Your task to perform on an android device: Open calendar and show me the second week of next month Image 0: 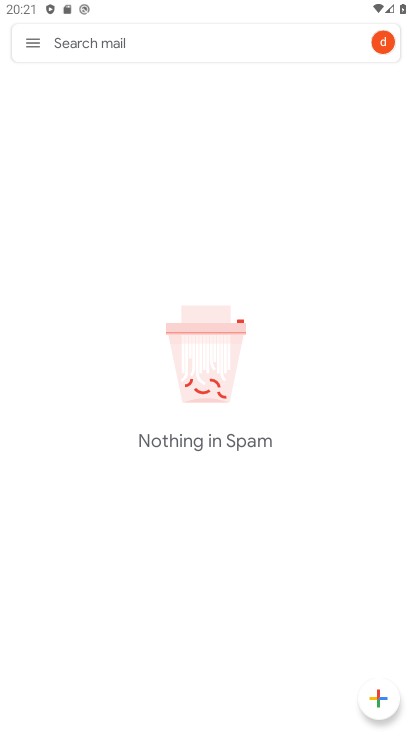
Step 0: press home button
Your task to perform on an android device: Open calendar and show me the second week of next month Image 1: 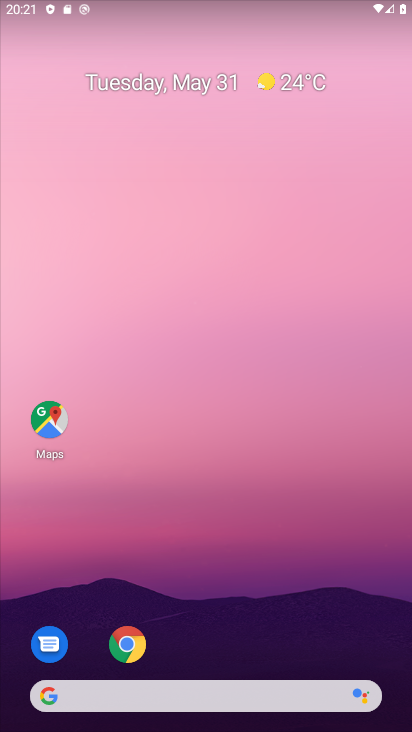
Step 1: drag from (301, 578) to (301, 194)
Your task to perform on an android device: Open calendar and show me the second week of next month Image 2: 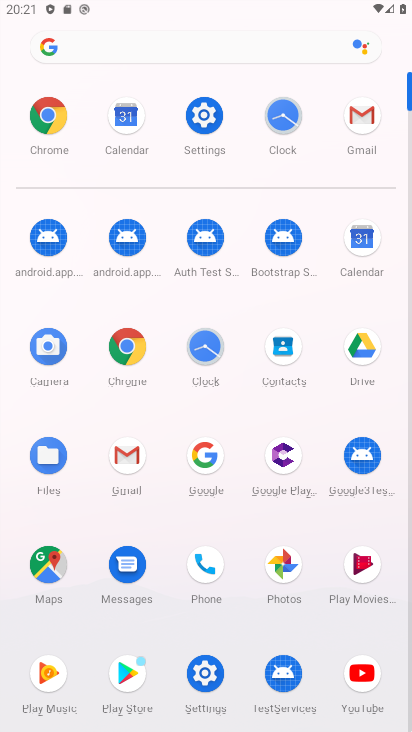
Step 2: click (374, 253)
Your task to perform on an android device: Open calendar and show me the second week of next month Image 3: 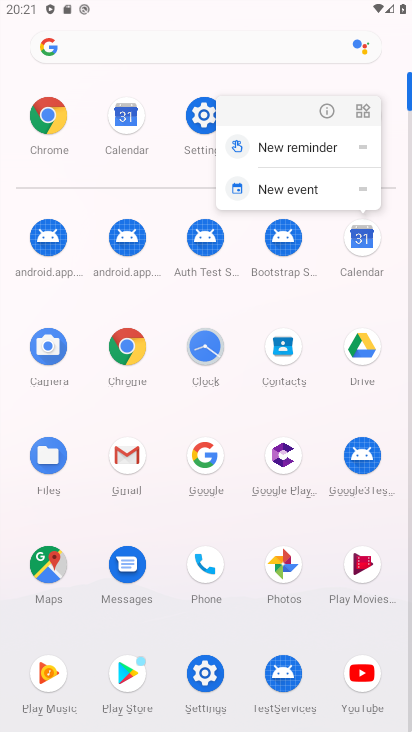
Step 3: click (351, 232)
Your task to perform on an android device: Open calendar and show me the second week of next month Image 4: 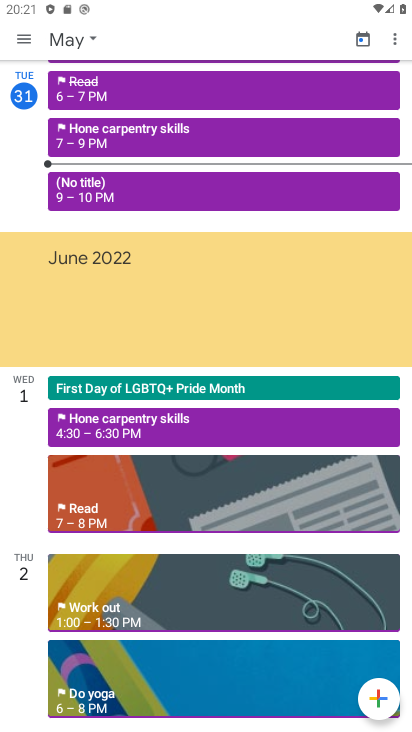
Step 4: click (56, 35)
Your task to perform on an android device: Open calendar and show me the second week of next month Image 5: 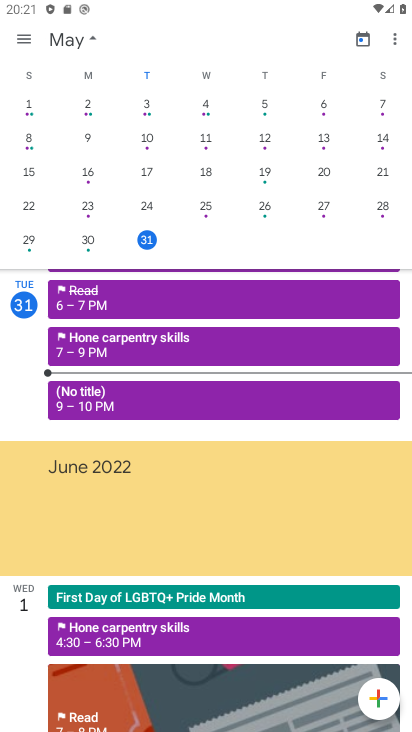
Step 5: drag from (307, 181) to (3, 151)
Your task to perform on an android device: Open calendar and show me the second week of next month Image 6: 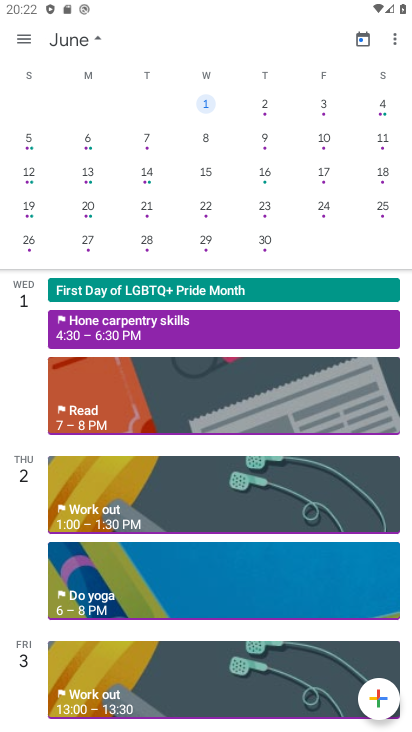
Step 6: click (35, 141)
Your task to perform on an android device: Open calendar and show me the second week of next month Image 7: 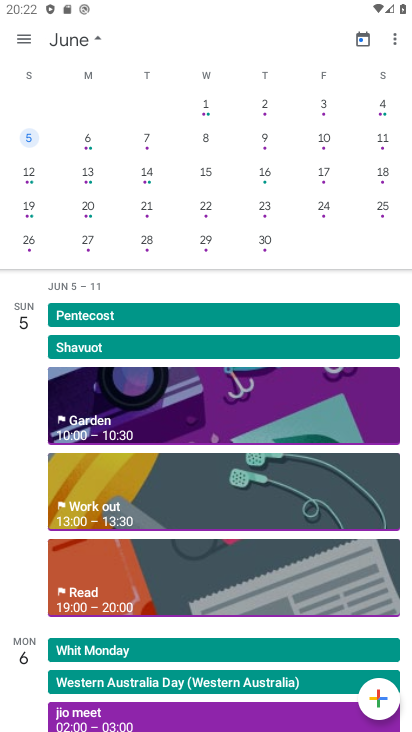
Step 7: task complete